Your task to perform on an android device: Find coffee shops on Maps Image 0: 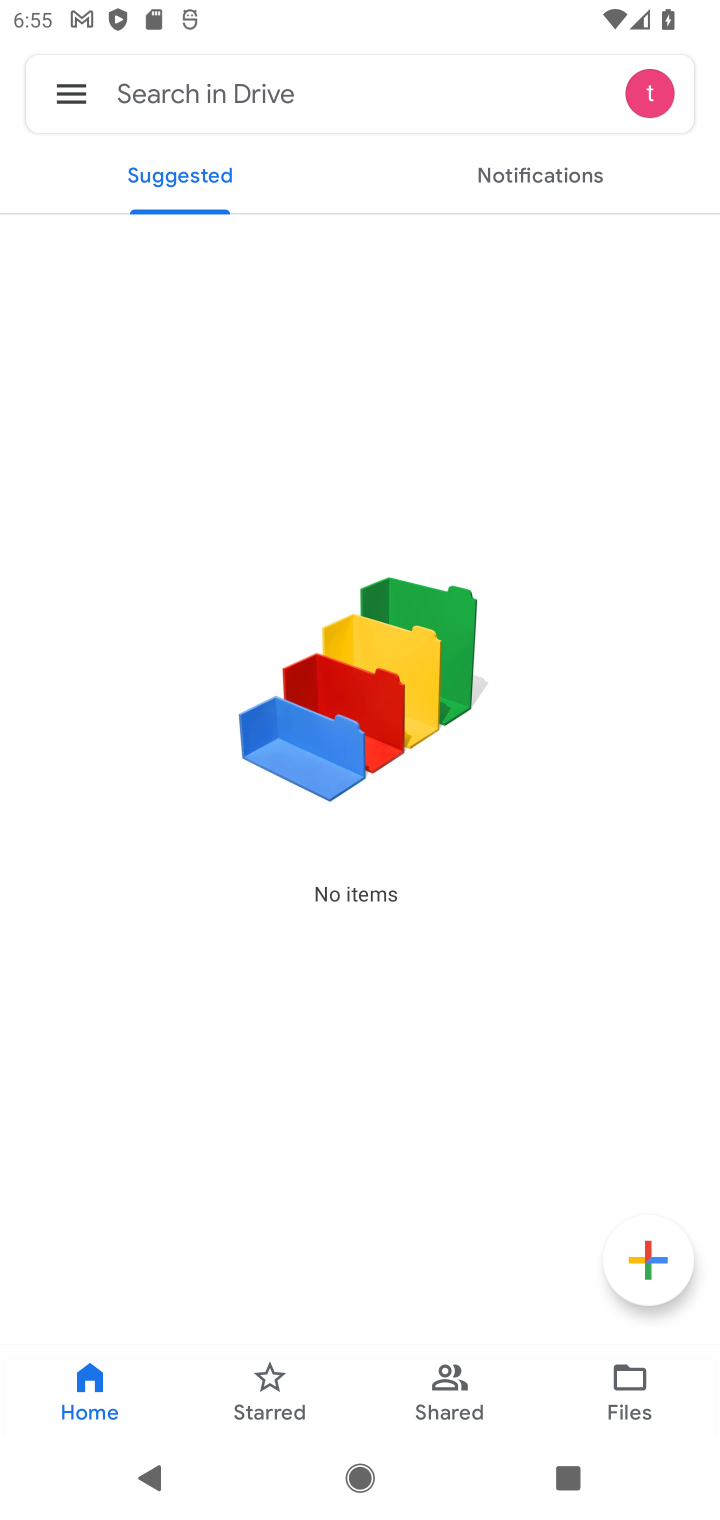
Step 0: press home button
Your task to perform on an android device: Find coffee shops on Maps Image 1: 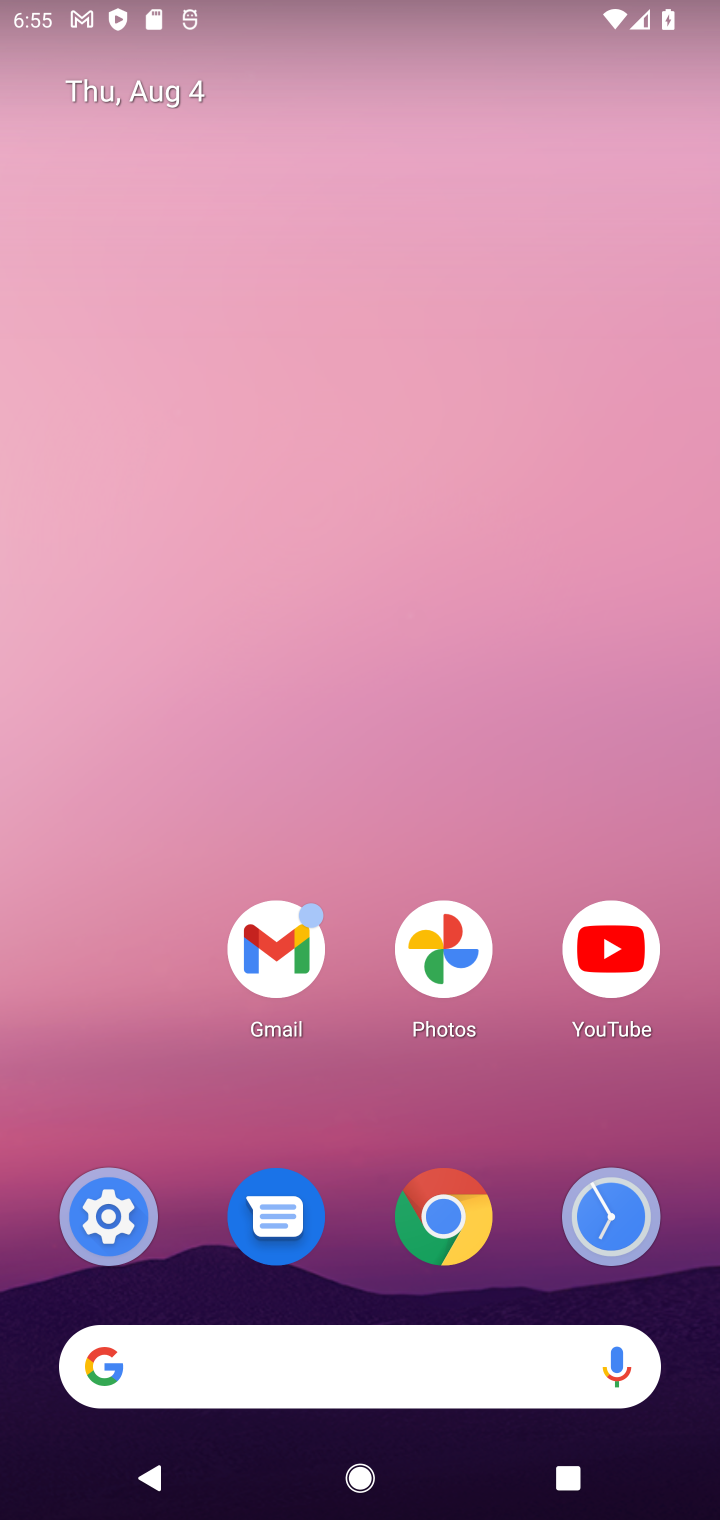
Step 1: drag from (348, 1313) to (311, 96)
Your task to perform on an android device: Find coffee shops on Maps Image 2: 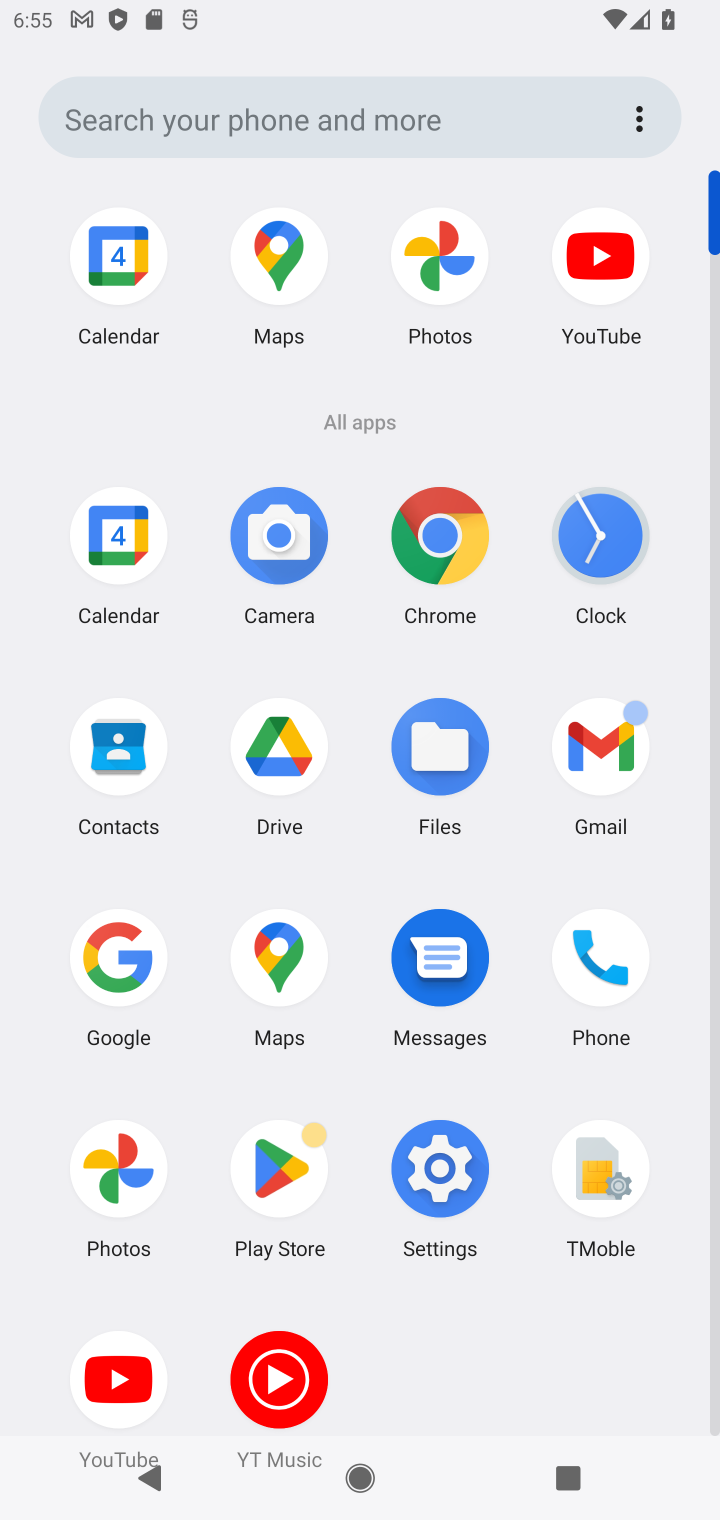
Step 2: click (278, 253)
Your task to perform on an android device: Find coffee shops on Maps Image 3: 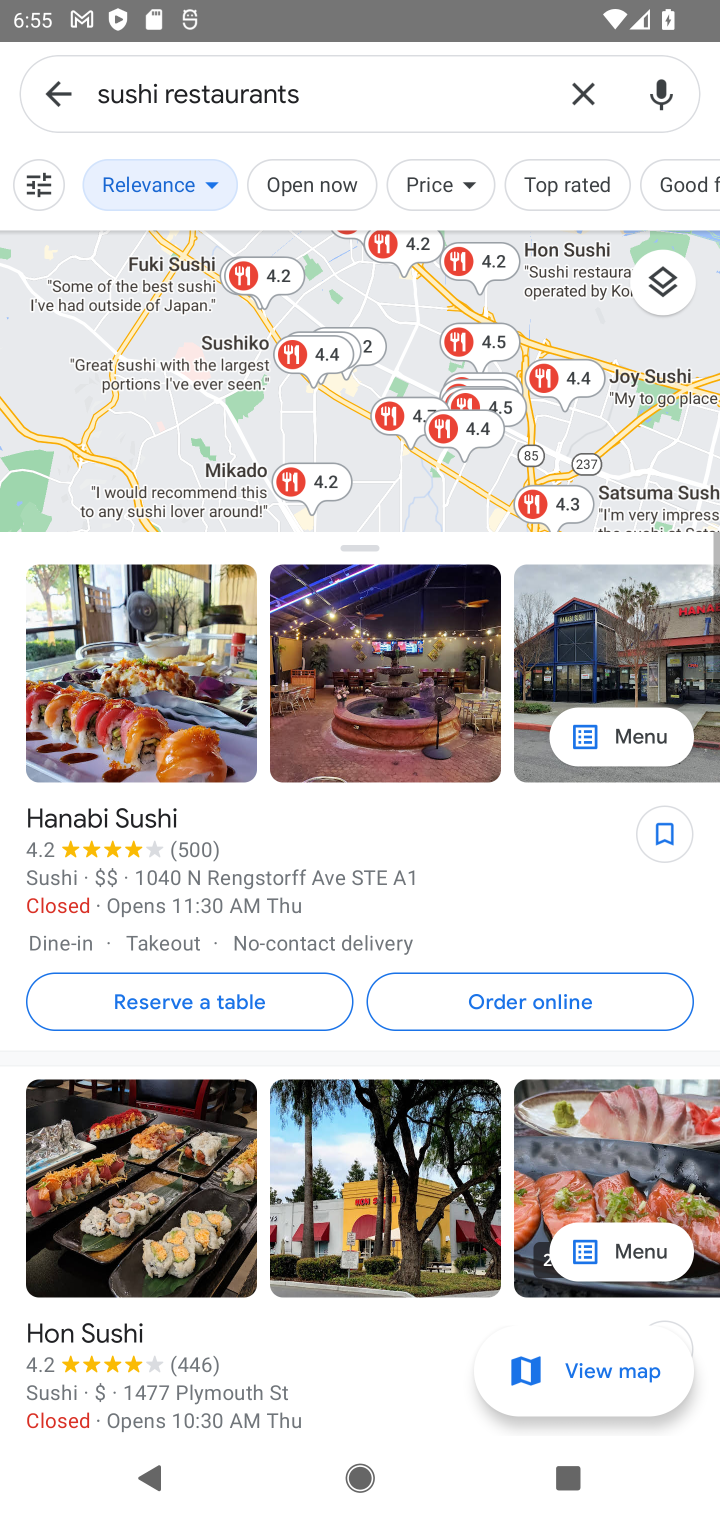
Step 3: click (589, 94)
Your task to perform on an android device: Find coffee shops on Maps Image 4: 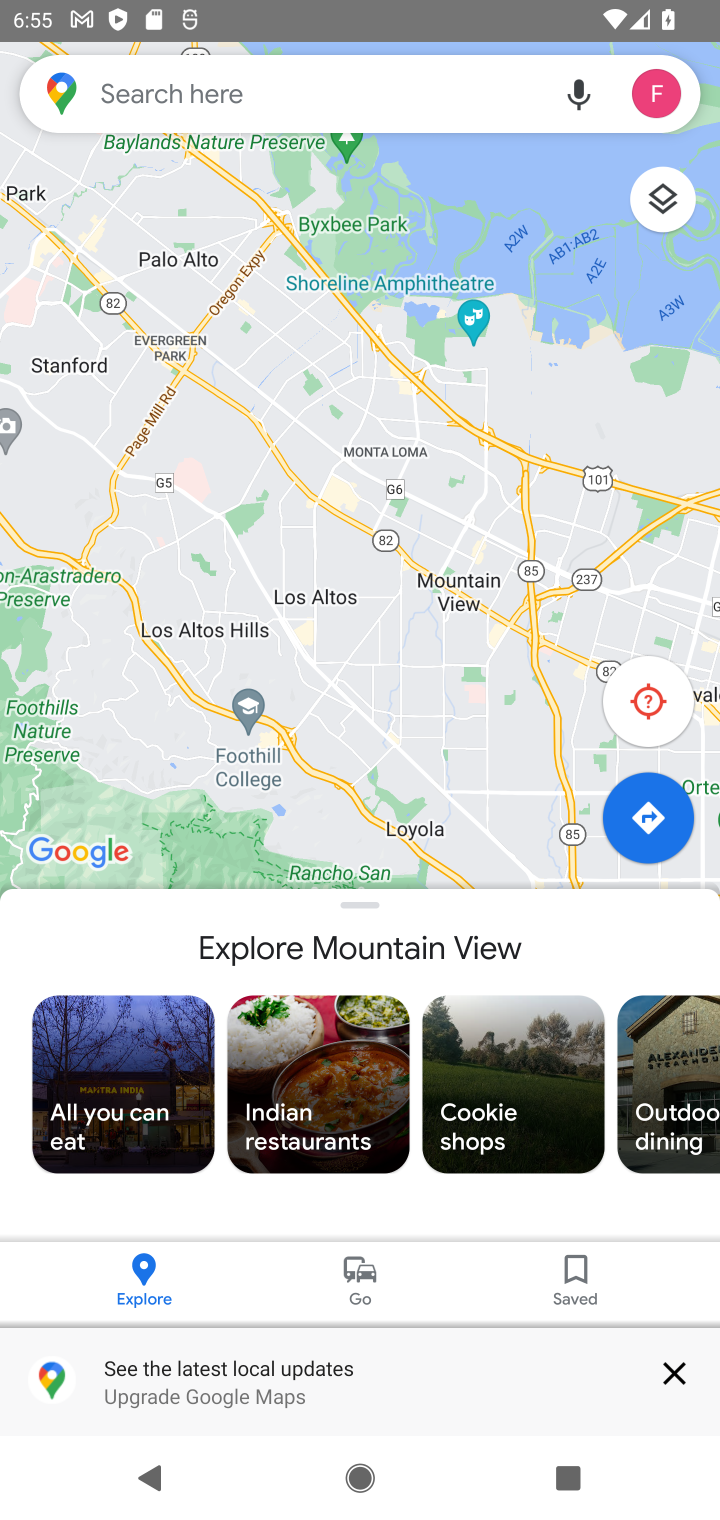
Step 4: click (327, 91)
Your task to perform on an android device: Find coffee shops on Maps Image 5: 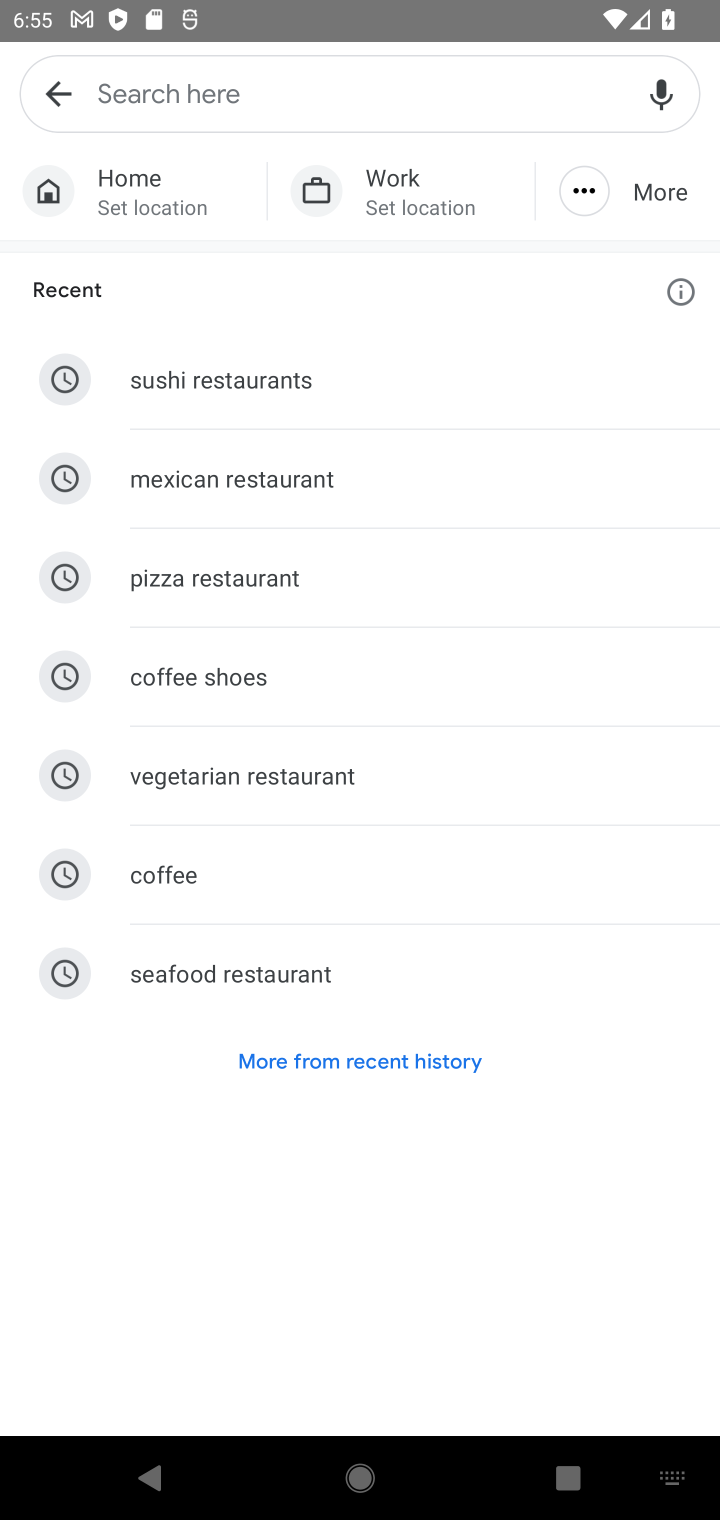
Step 5: type "ccoffee shops"
Your task to perform on an android device: Find coffee shops on Maps Image 6: 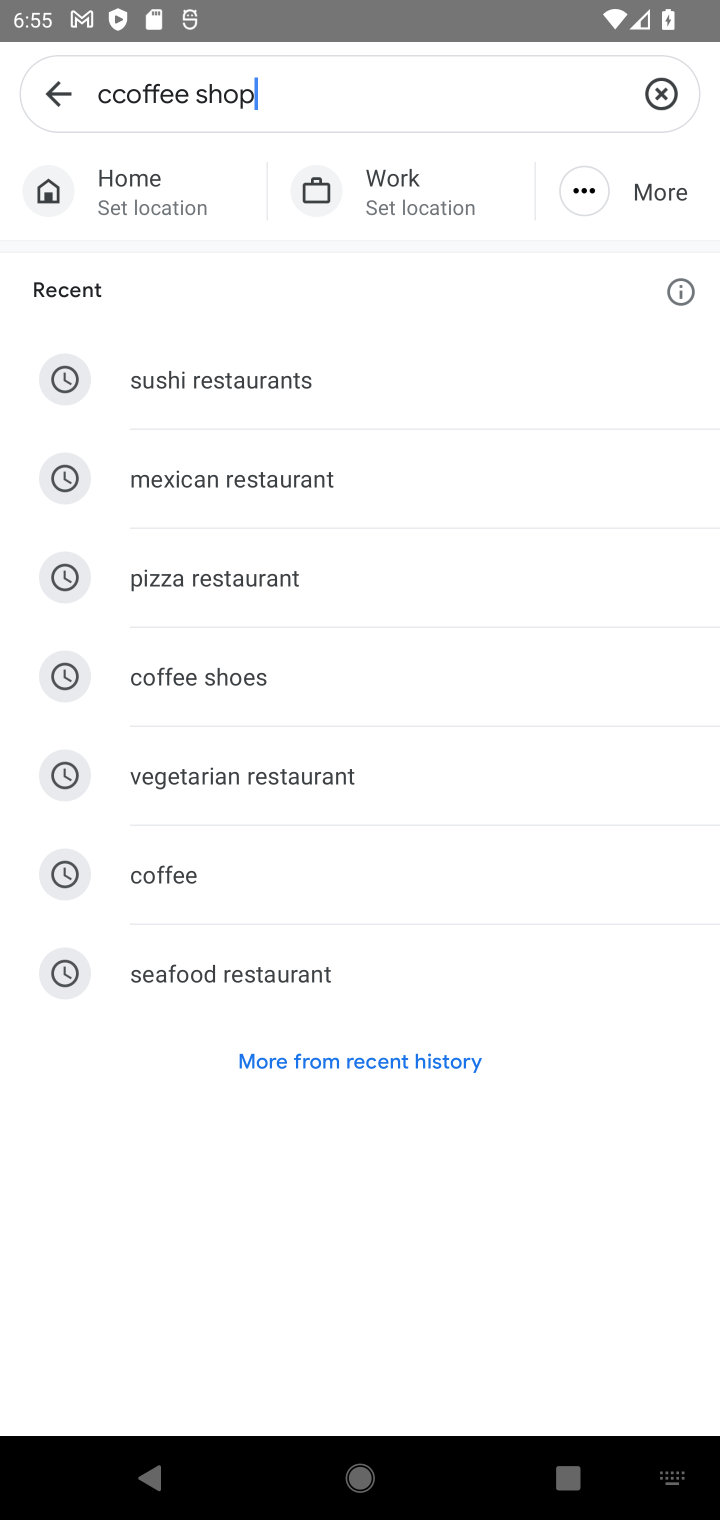
Step 6: type ""
Your task to perform on an android device: Find coffee shops on Maps Image 7: 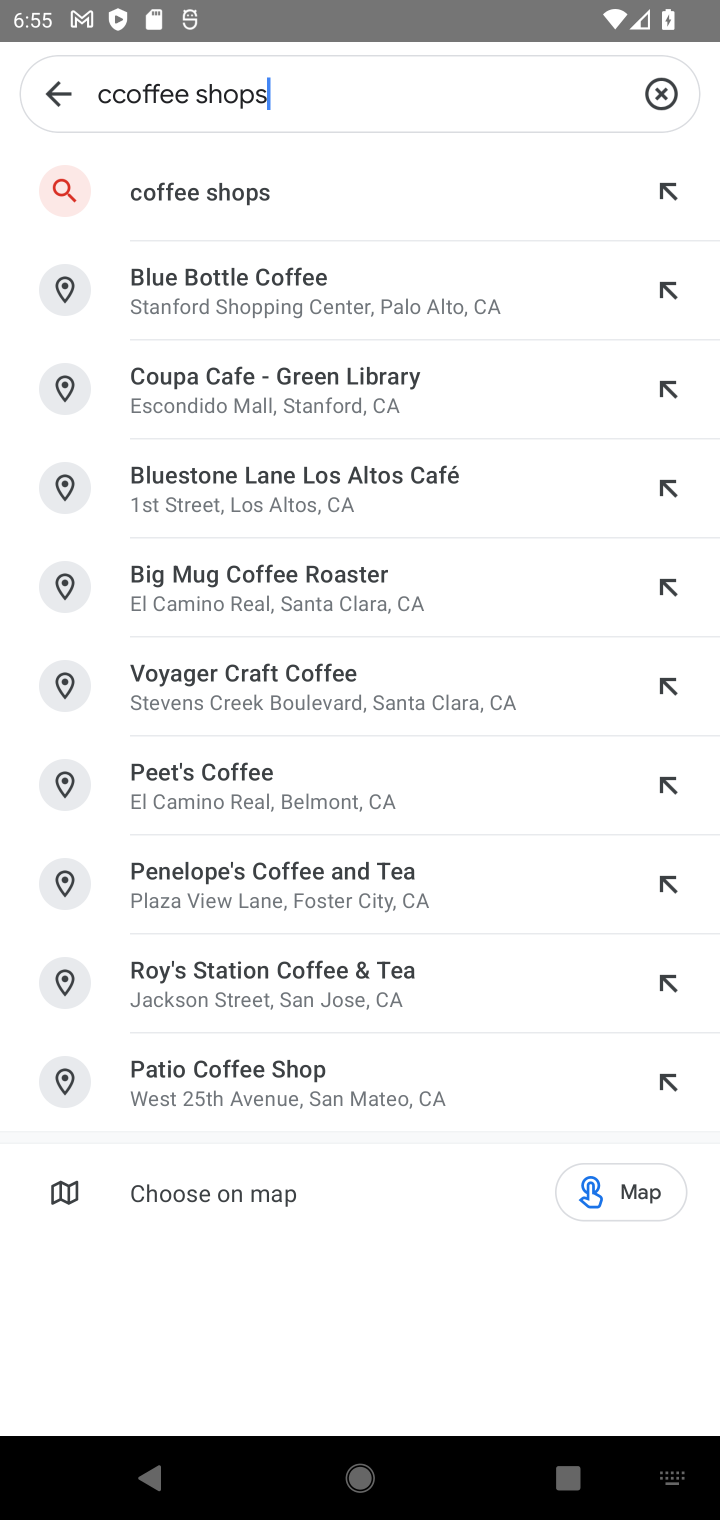
Step 7: click (201, 197)
Your task to perform on an android device: Find coffee shops on Maps Image 8: 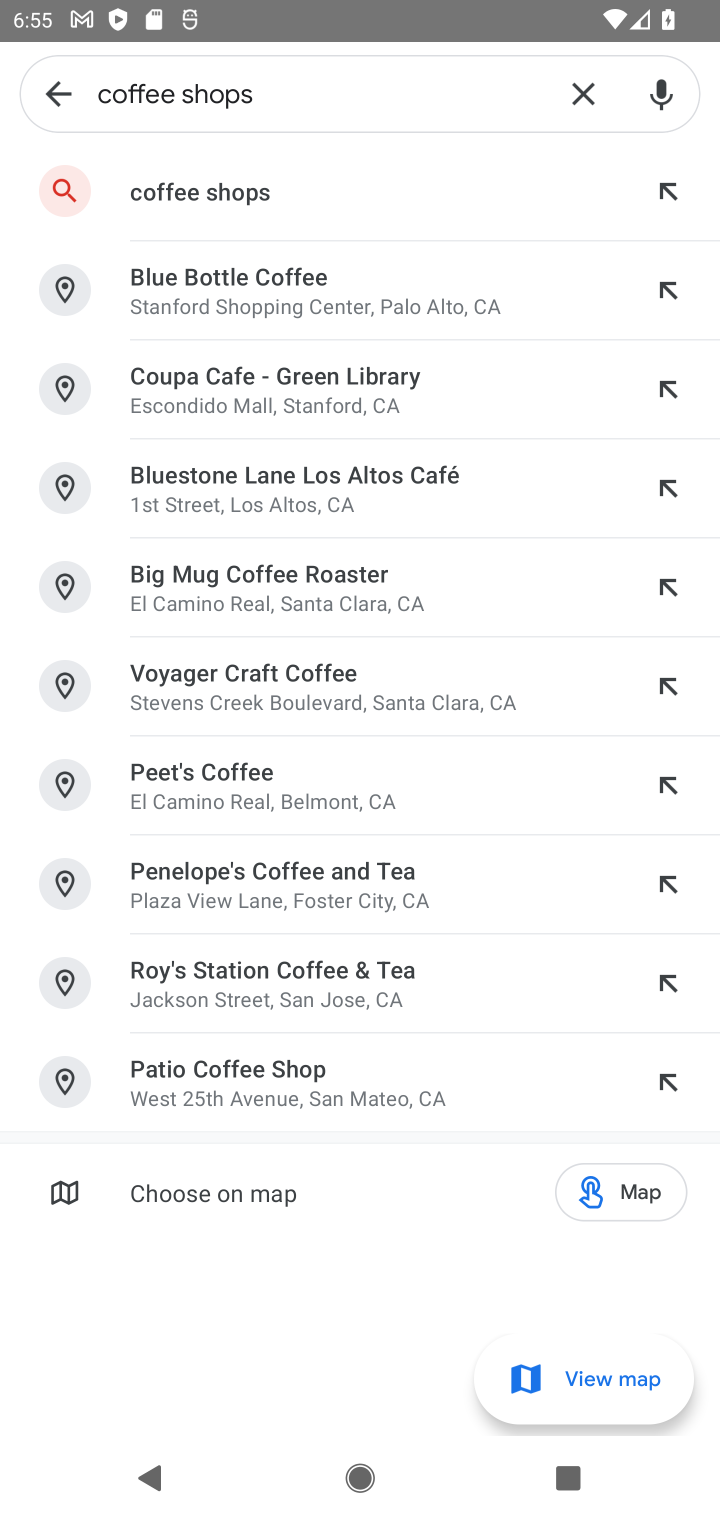
Step 8: click (203, 197)
Your task to perform on an android device: Find coffee shops on Maps Image 9: 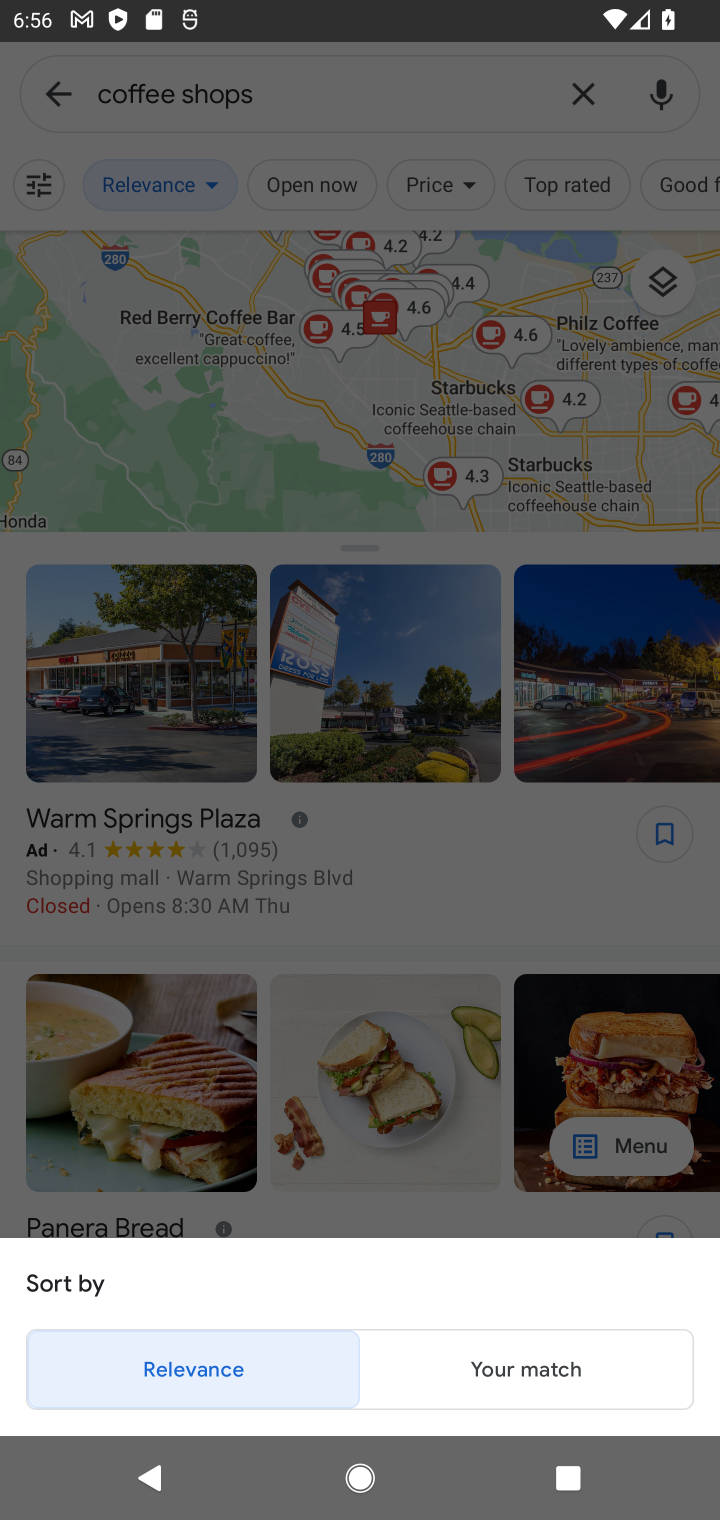
Step 9: click (281, 1372)
Your task to perform on an android device: Find coffee shops on Maps Image 10: 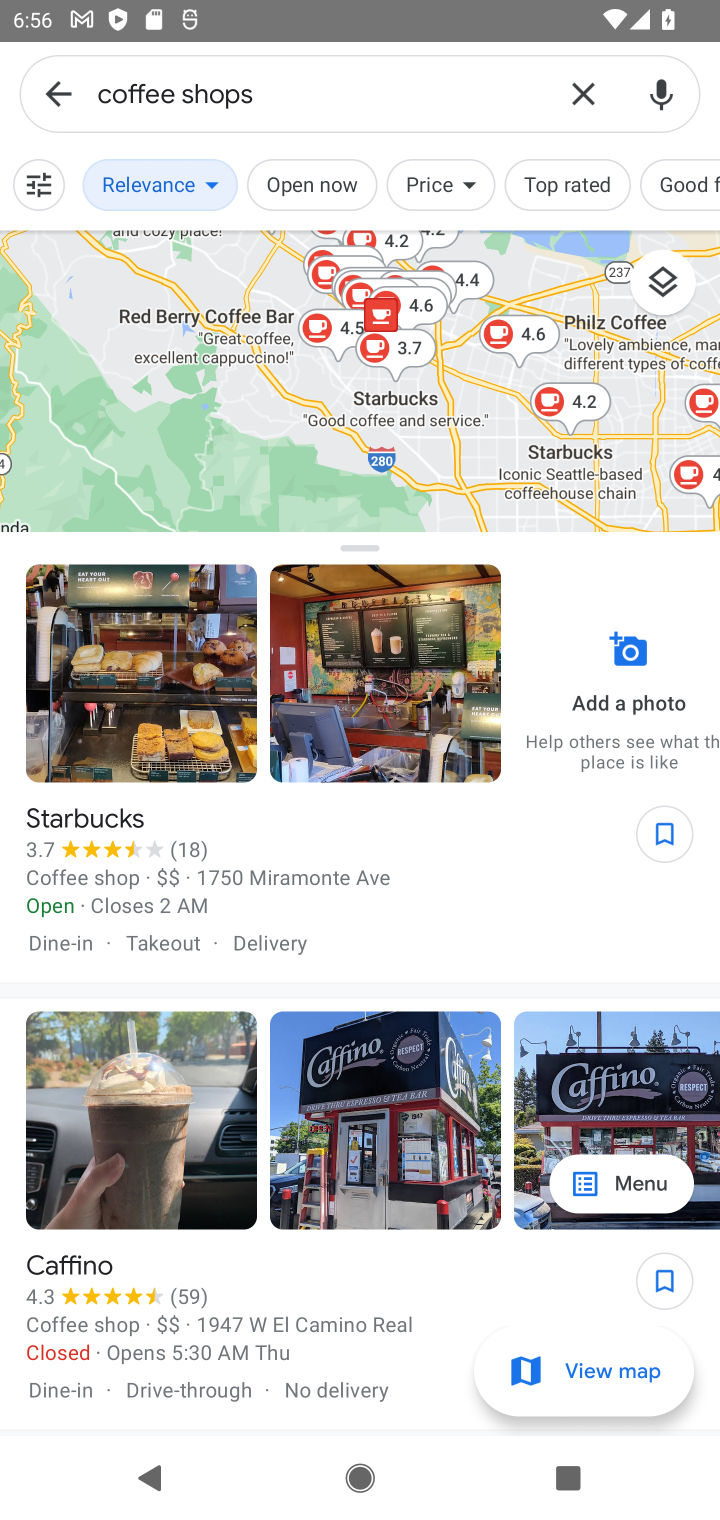
Step 10: task complete